Your task to perform on an android device: Go to Android settings Image 0: 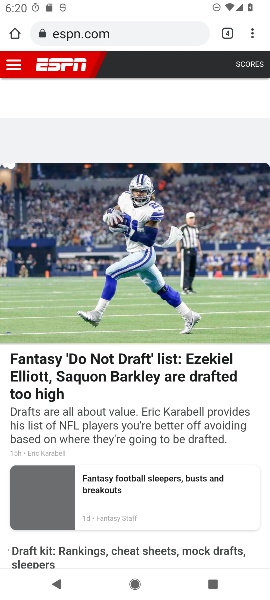
Step 0: press home button
Your task to perform on an android device: Go to Android settings Image 1: 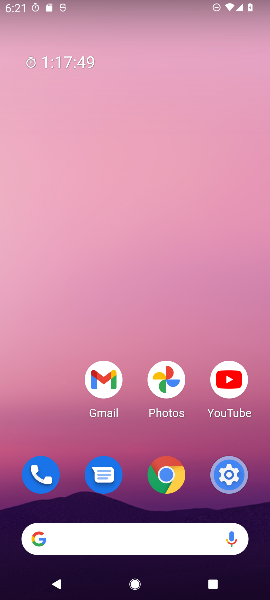
Step 1: drag from (53, 426) to (28, 113)
Your task to perform on an android device: Go to Android settings Image 2: 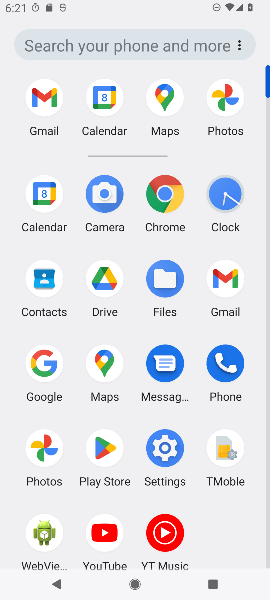
Step 2: click (166, 450)
Your task to perform on an android device: Go to Android settings Image 3: 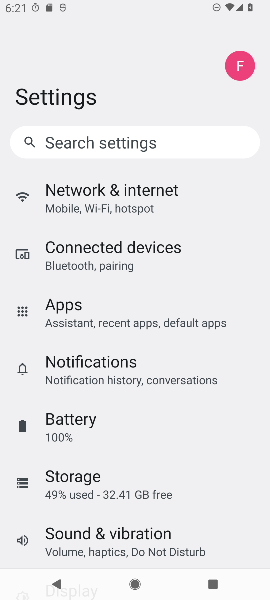
Step 3: drag from (237, 470) to (244, 396)
Your task to perform on an android device: Go to Android settings Image 4: 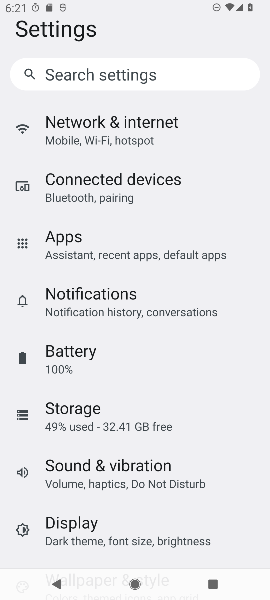
Step 4: drag from (238, 475) to (244, 398)
Your task to perform on an android device: Go to Android settings Image 5: 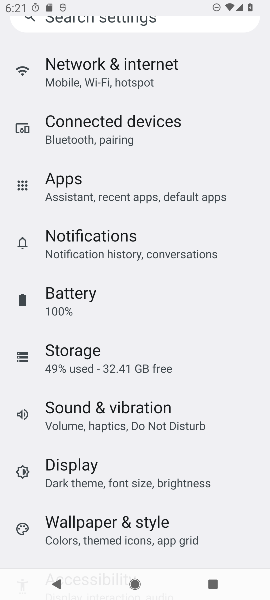
Step 5: drag from (232, 473) to (232, 401)
Your task to perform on an android device: Go to Android settings Image 6: 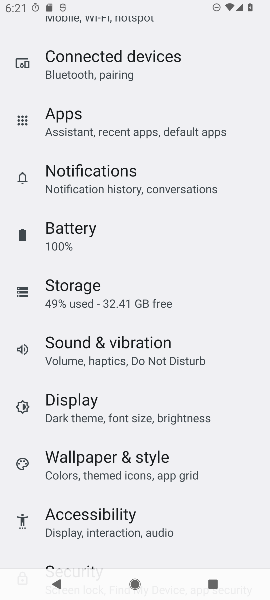
Step 6: drag from (235, 447) to (231, 380)
Your task to perform on an android device: Go to Android settings Image 7: 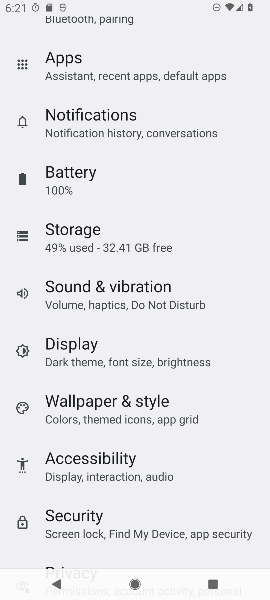
Step 7: drag from (233, 448) to (230, 349)
Your task to perform on an android device: Go to Android settings Image 8: 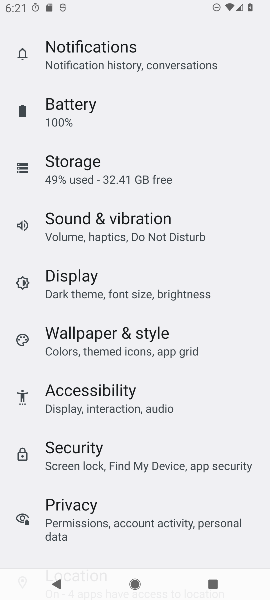
Step 8: drag from (216, 485) to (224, 386)
Your task to perform on an android device: Go to Android settings Image 9: 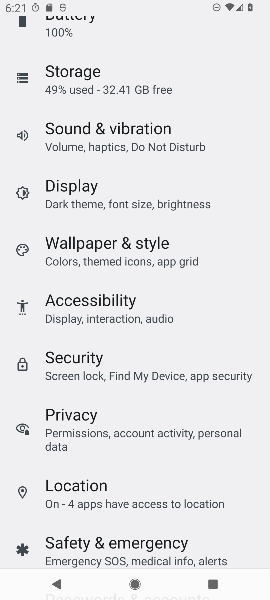
Step 9: drag from (210, 491) to (207, 390)
Your task to perform on an android device: Go to Android settings Image 10: 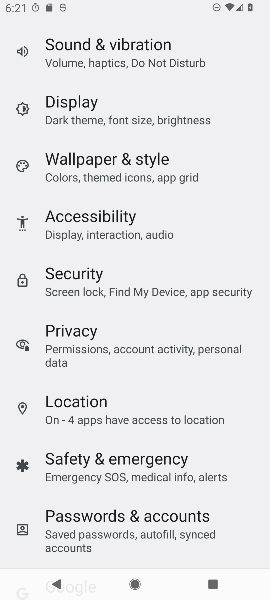
Step 10: drag from (200, 499) to (199, 397)
Your task to perform on an android device: Go to Android settings Image 11: 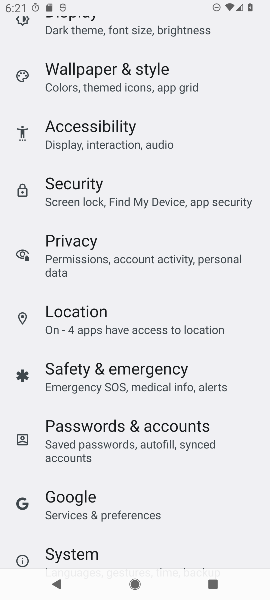
Step 11: drag from (193, 520) to (197, 415)
Your task to perform on an android device: Go to Android settings Image 12: 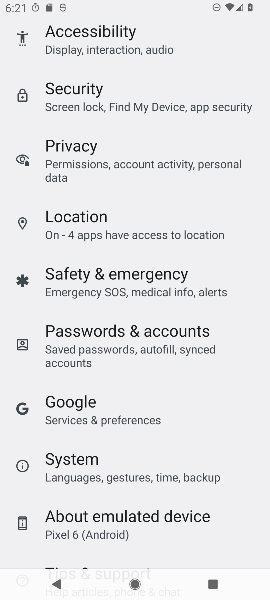
Step 12: drag from (181, 520) to (187, 392)
Your task to perform on an android device: Go to Android settings Image 13: 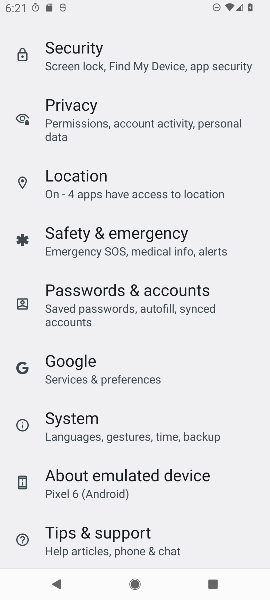
Step 13: click (111, 435)
Your task to perform on an android device: Go to Android settings Image 14: 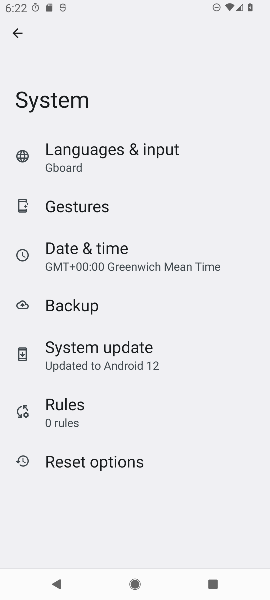
Step 14: task complete